Your task to perform on an android device: Open the calendar and show me this week's events? Image 0: 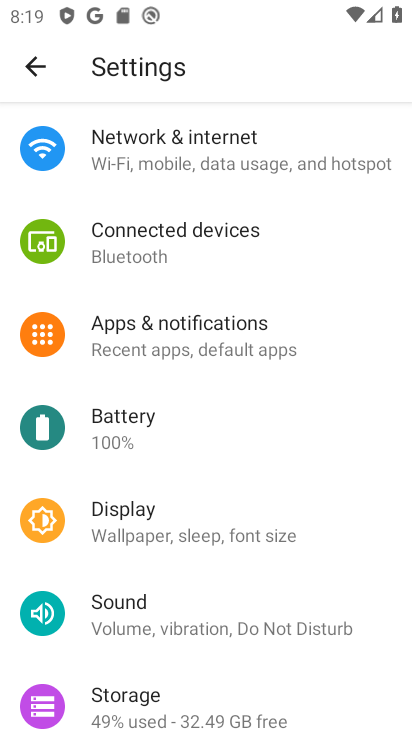
Step 0: press home button
Your task to perform on an android device: Open the calendar and show me this week's events? Image 1: 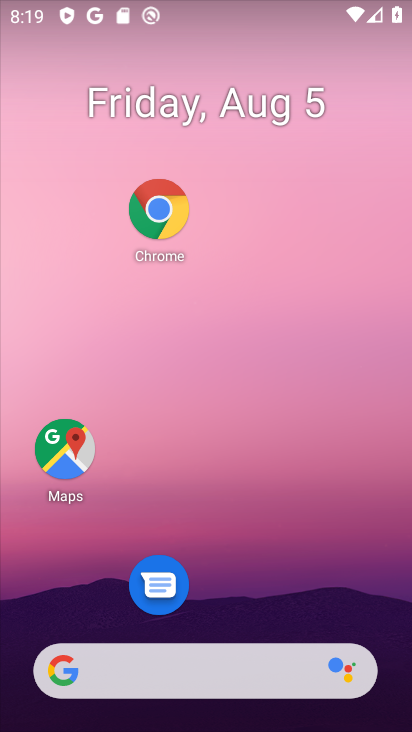
Step 1: drag from (238, 607) to (232, 50)
Your task to perform on an android device: Open the calendar and show me this week's events? Image 2: 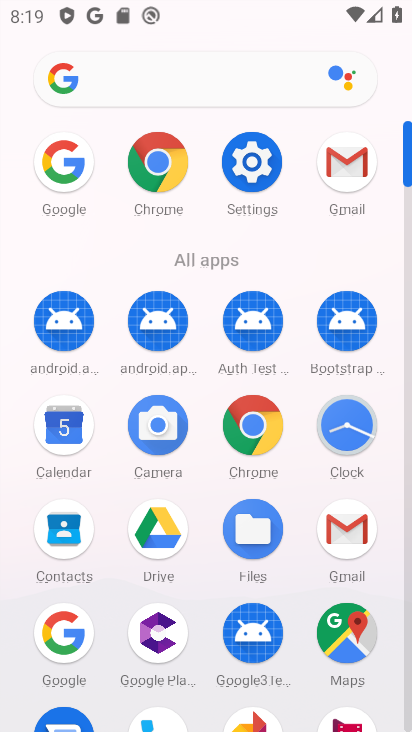
Step 2: click (54, 417)
Your task to perform on an android device: Open the calendar and show me this week's events? Image 3: 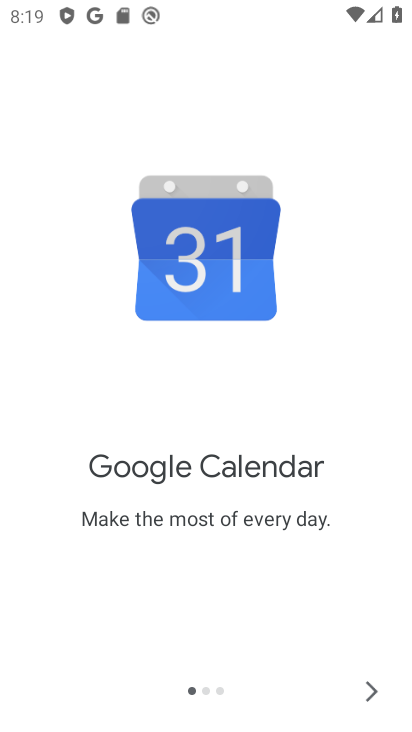
Step 3: click (355, 688)
Your task to perform on an android device: Open the calendar and show me this week's events? Image 4: 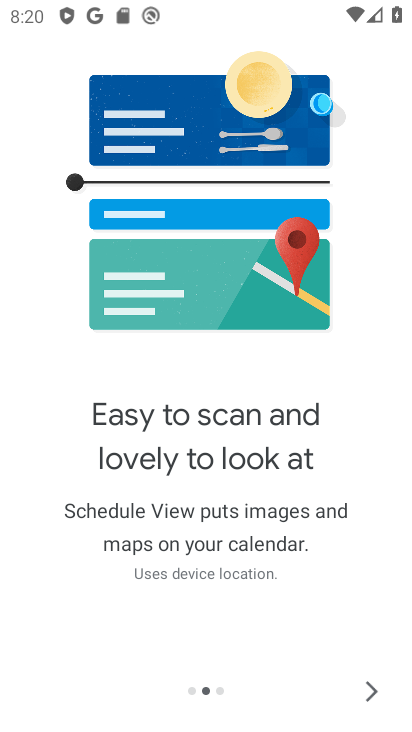
Step 4: click (355, 688)
Your task to perform on an android device: Open the calendar and show me this week's events? Image 5: 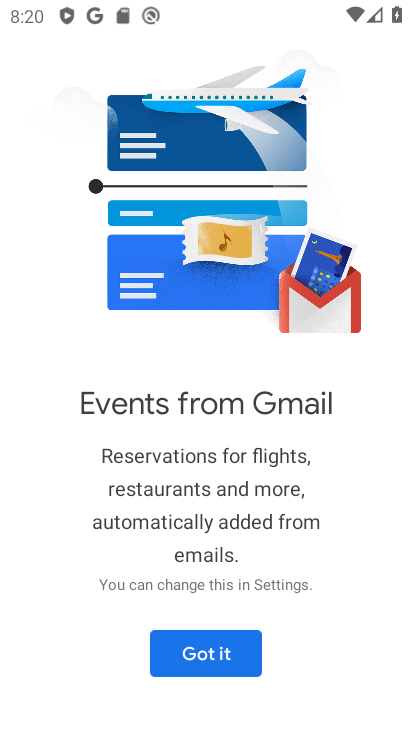
Step 5: click (233, 653)
Your task to perform on an android device: Open the calendar and show me this week's events? Image 6: 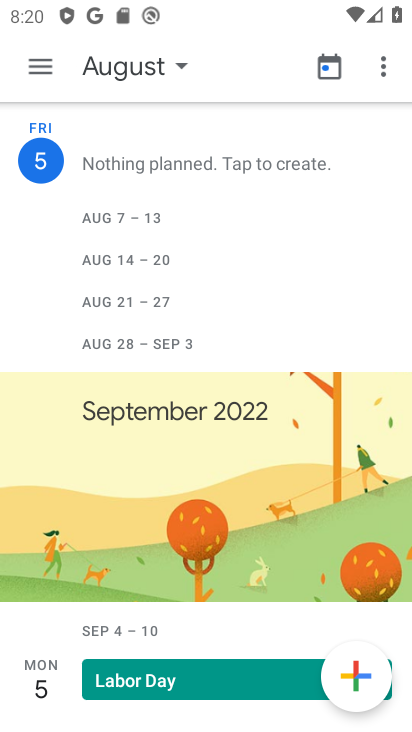
Step 6: click (48, 81)
Your task to perform on an android device: Open the calendar and show me this week's events? Image 7: 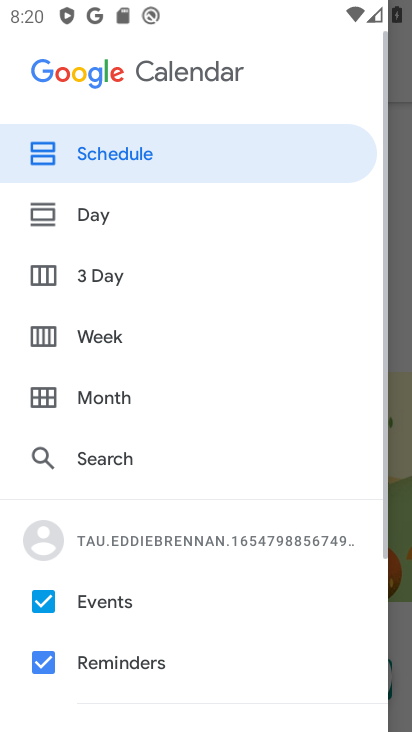
Step 7: click (81, 349)
Your task to perform on an android device: Open the calendar and show me this week's events? Image 8: 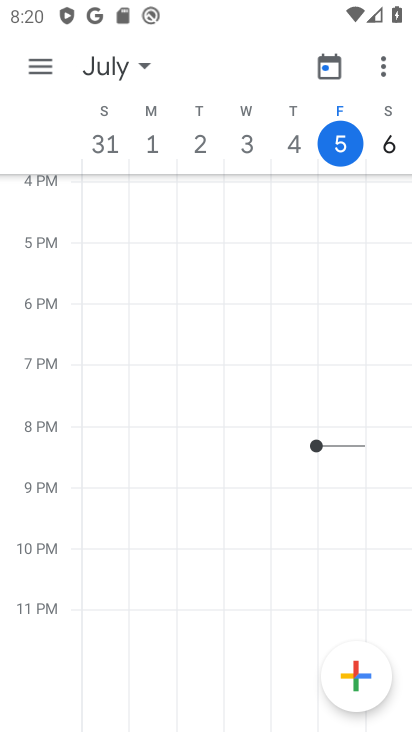
Step 8: click (81, 349)
Your task to perform on an android device: Open the calendar and show me this week's events? Image 9: 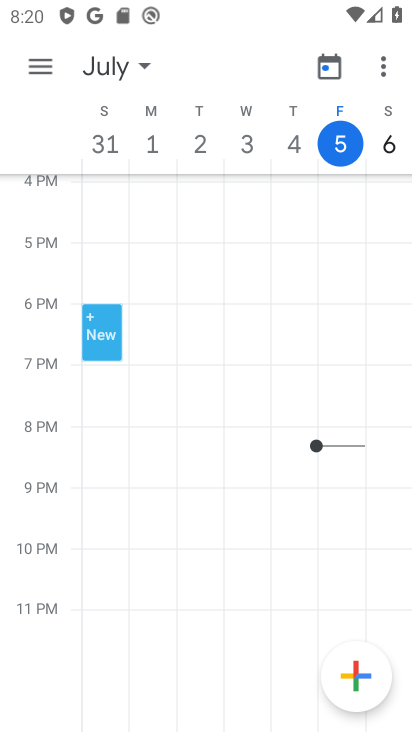
Step 9: task complete